Your task to perform on an android device: Check the weather Image 0: 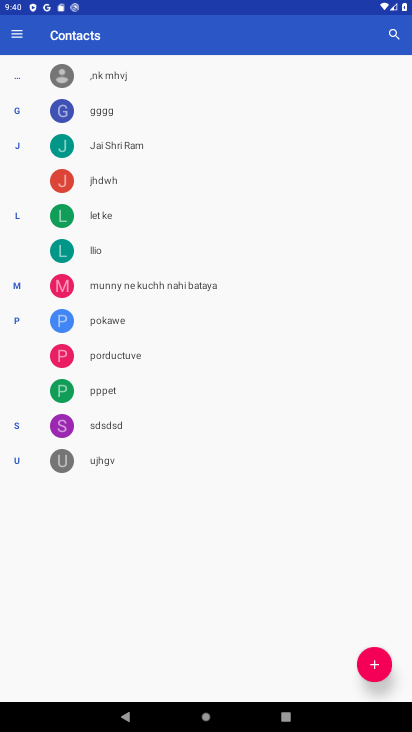
Step 0: press back button
Your task to perform on an android device: Check the weather Image 1: 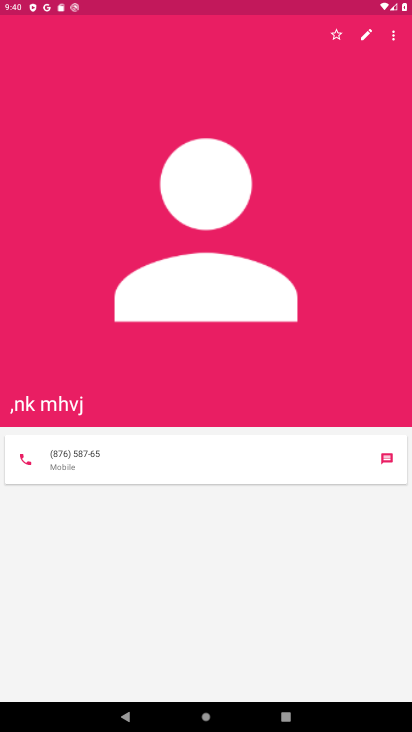
Step 1: click (209, 707)
Your task to perform on an android device: Check the weather Image 2: 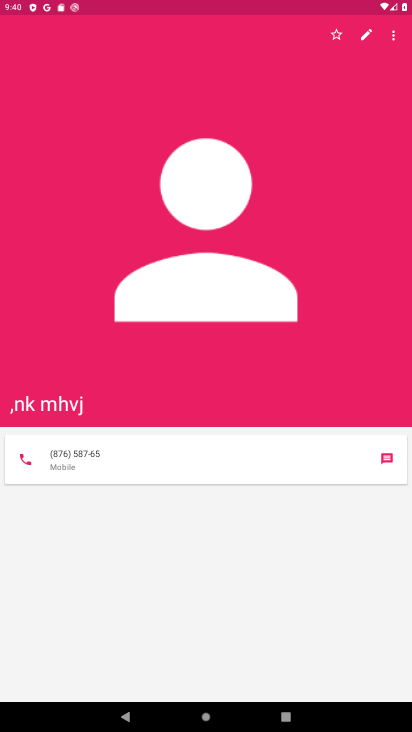
Step 2: click (208, 710)
Your task to perform on an android device: Check the weather Image 3: 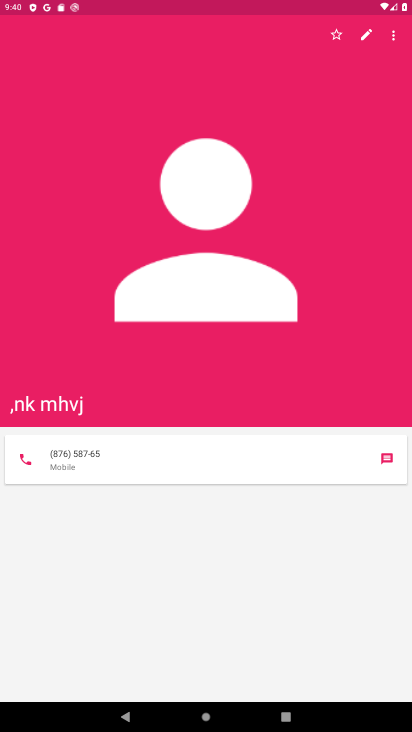
Step 3: click (124, 706)
Your task to perform on an android device: Check the weather Image 4: 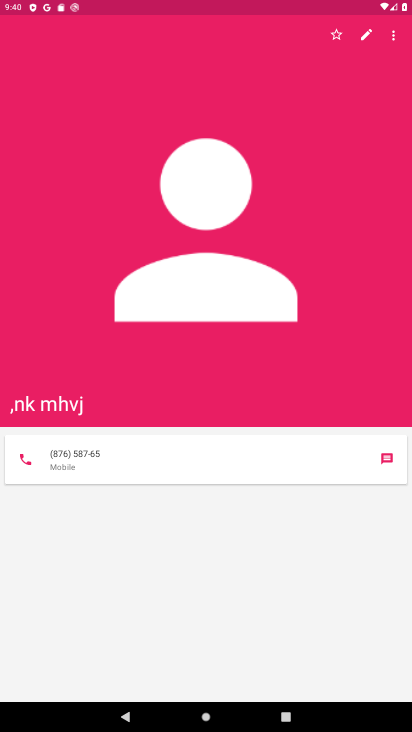
Step 4: click (124, 710)
Your task to perform on an android device: Check the weather Image 5: 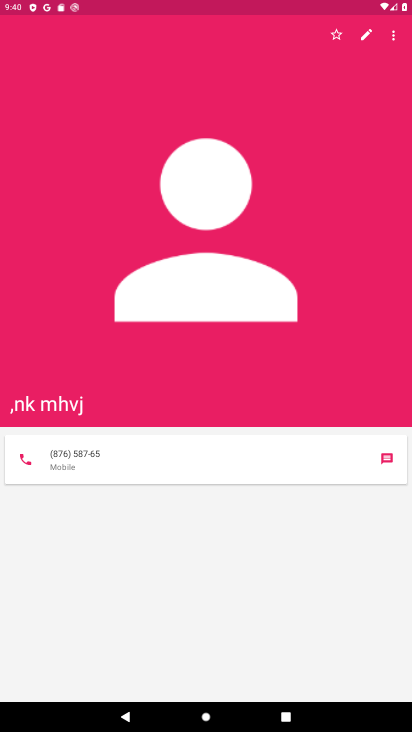
Step 5: click (124, 710)
Your task to perform on an android device: Check the weather Image 6: 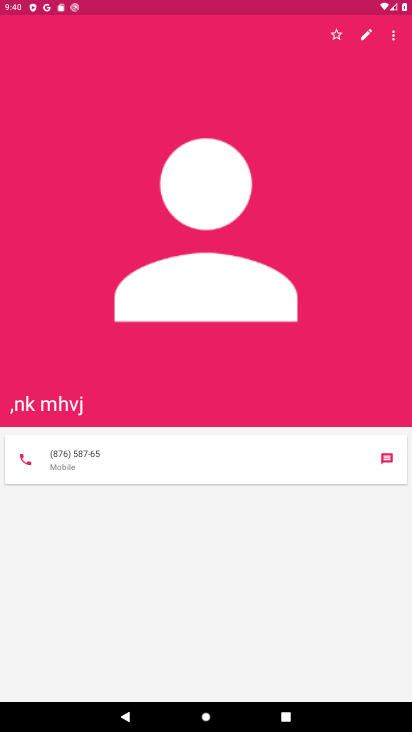
Step 6: click (124, 717)
Your task to perform on an android device: Check the weather Image 7: 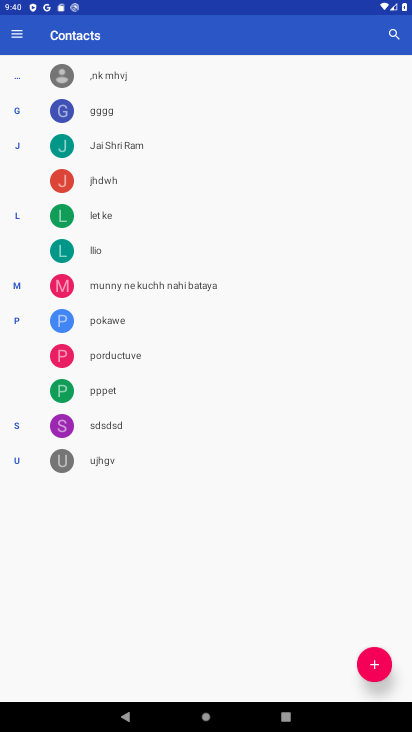
Step 7: press back button
Your task to perform on an android device: Check the weather Image 8: 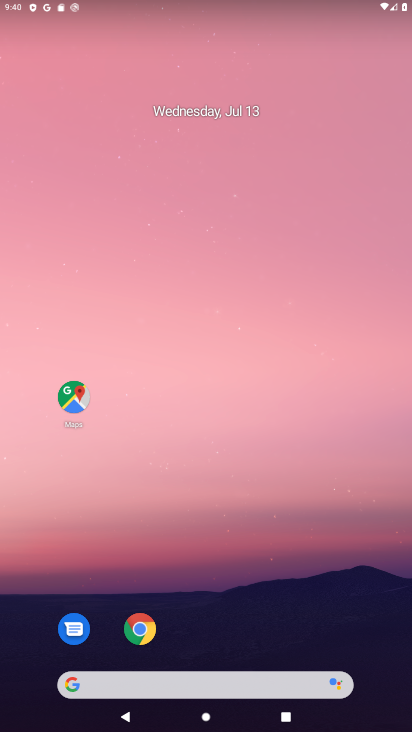
Step 8: click (199, 679)
Your task to perform on an android device: Check the weather Image 9: 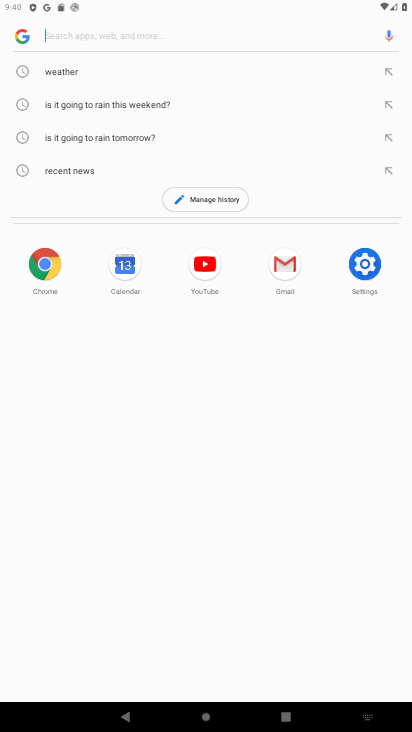
Step 9: click (126, 62)
Your task to perform on an android device: Check the weather Image 10: 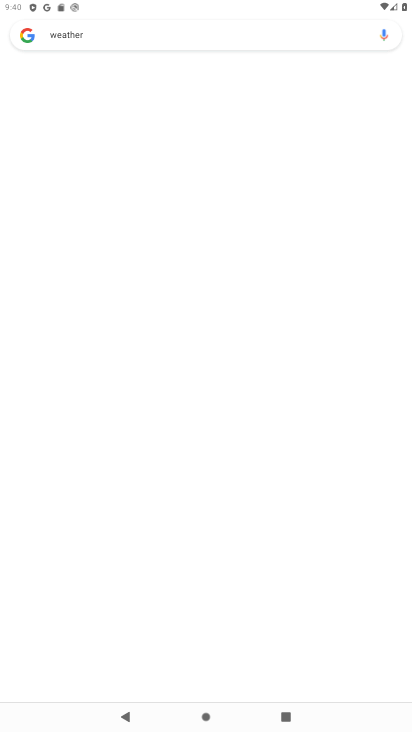
Step 10: task complete